Your task to perform on an android device: What's on my calendar today? Image 0: 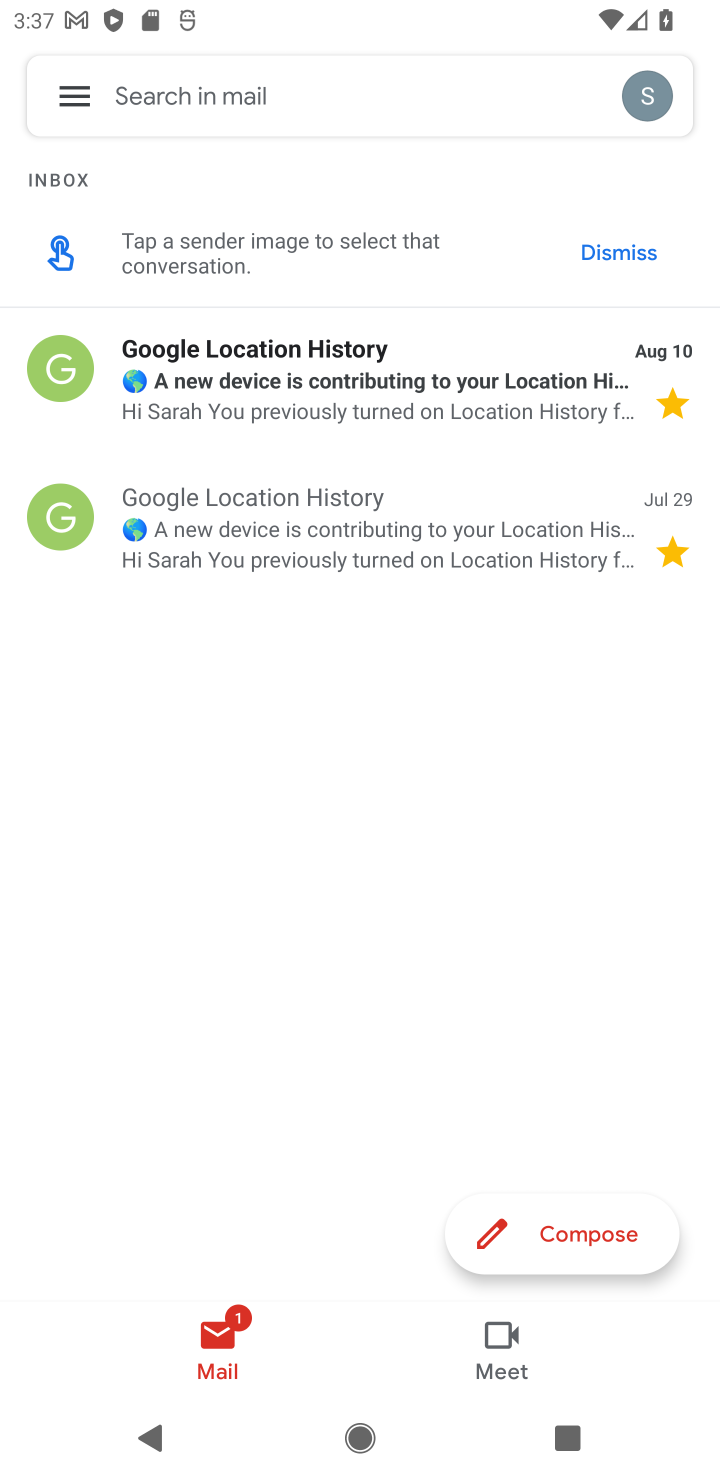
Step 0: press home button
Your task to perform on an android device: What's on my calendar today? Image 1: 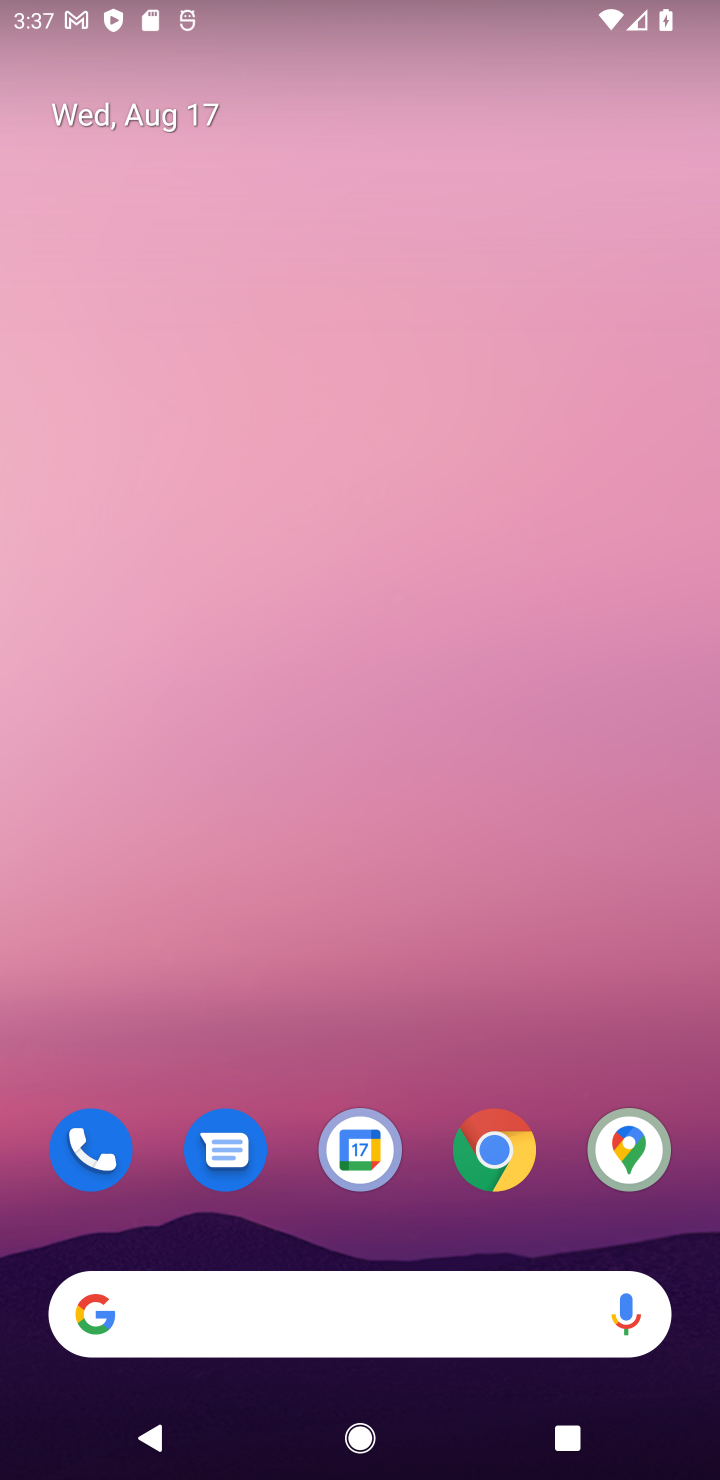
Step 1: drag from (476, 881) to (221, 32)
Your task to perform on an android device: What's on my calendar today? Image 2: 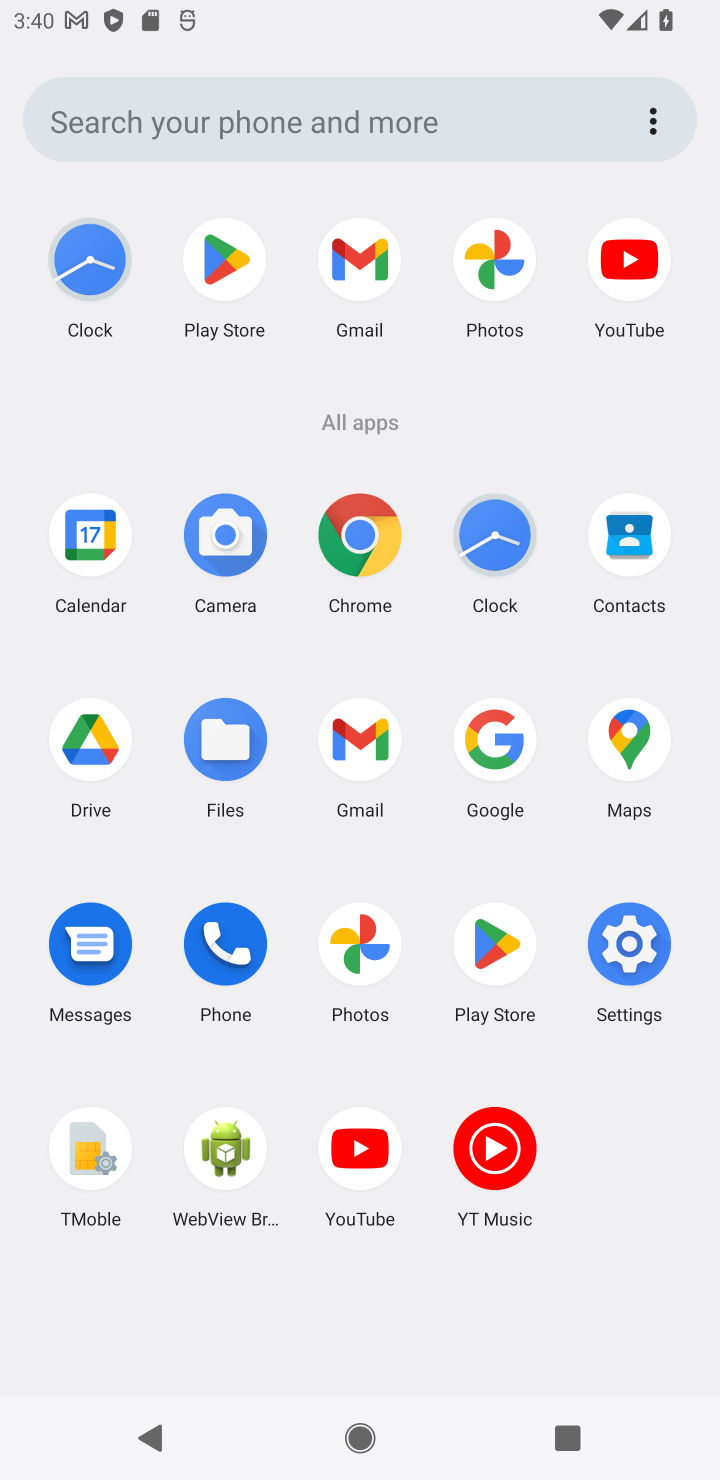
Step 2: click (99, 533)
Your task to perform on an android device: What's on my calendar today? Image 3: 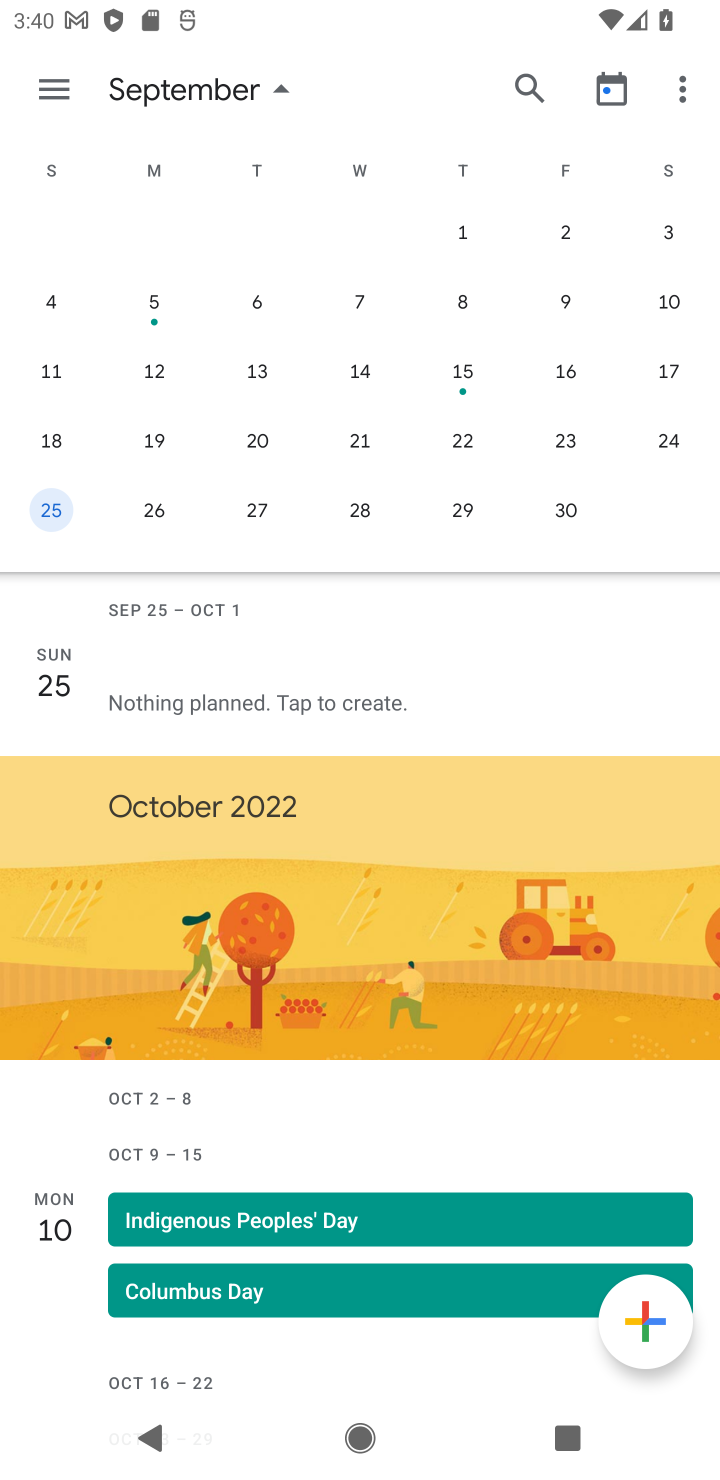
Step 3: task complete